Your task to perform on an android device: turn off translation in the chrome app Image 0: 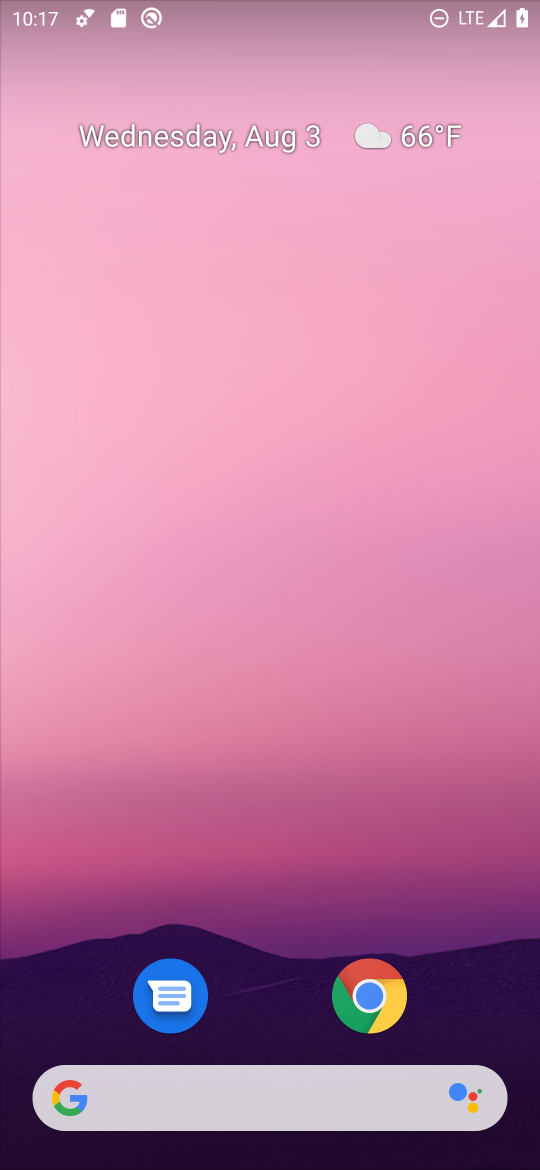
Step 0: click (378, 999)
Your task to perform on an android device: turn off translation in the chrome app Image 1: 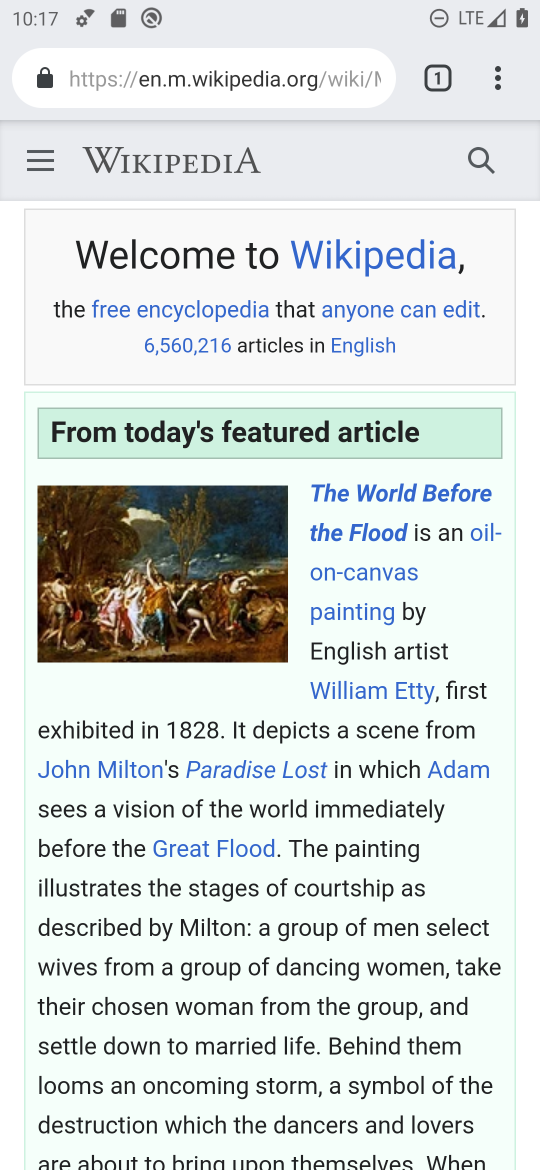
Step 1: click (498, 89)
Your task to perform on an android device: turn off translation in the chrome app Image 2: 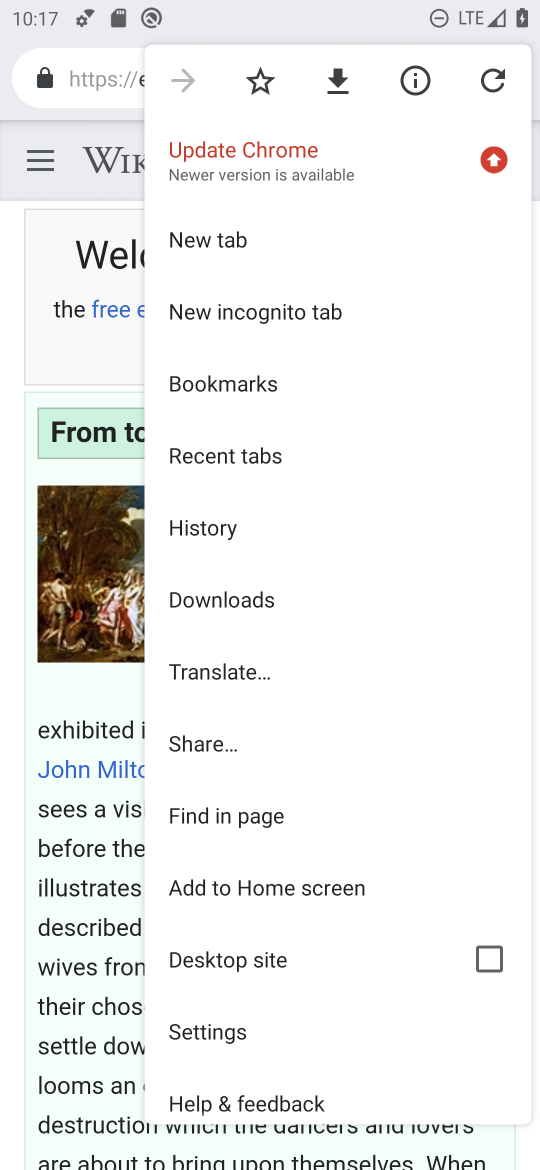
Step 2: click (243, 1027)
Your task to perform on an android device: turn off translation in the chrome app Image 3: 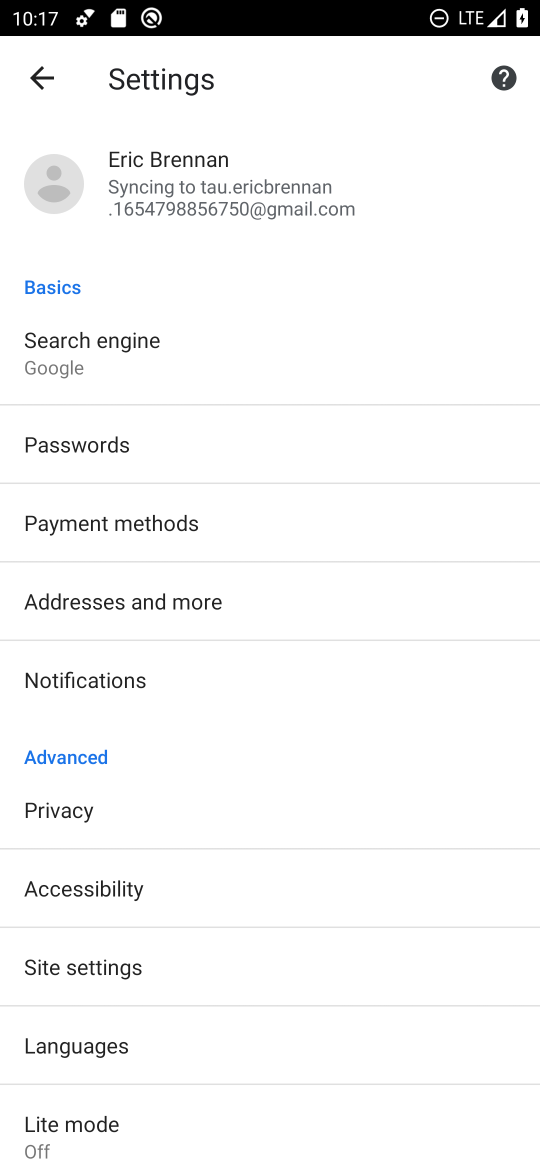
Step 3: click (243, 1025)
Your task to perform on an android device: turn off translation in the chrome app Image 4: 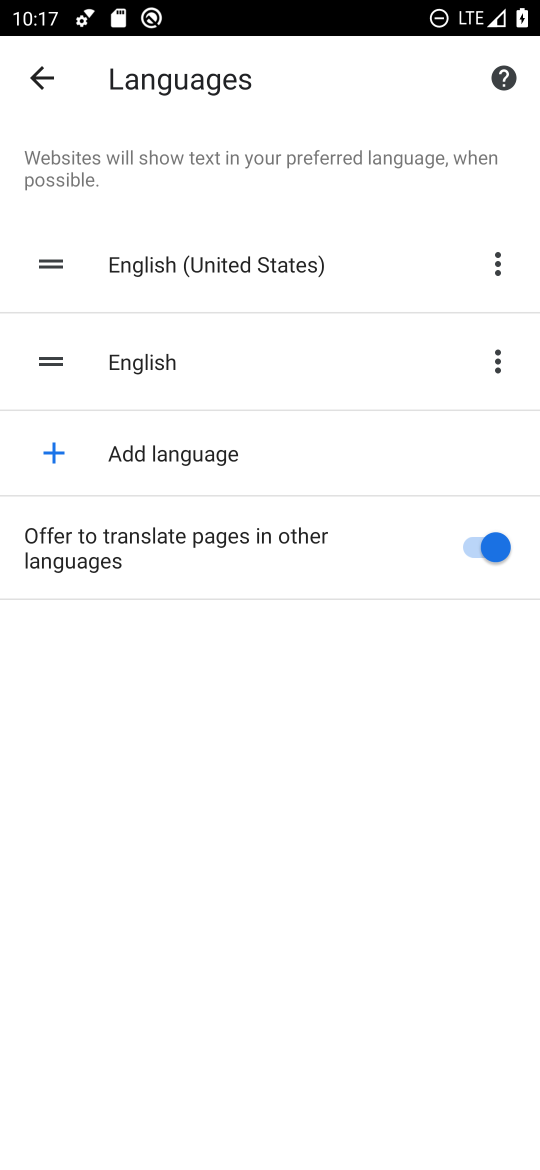
Step 4: click (485, 541)
Your task to perform on an android device: turn off translation in the chrome app Image 5: 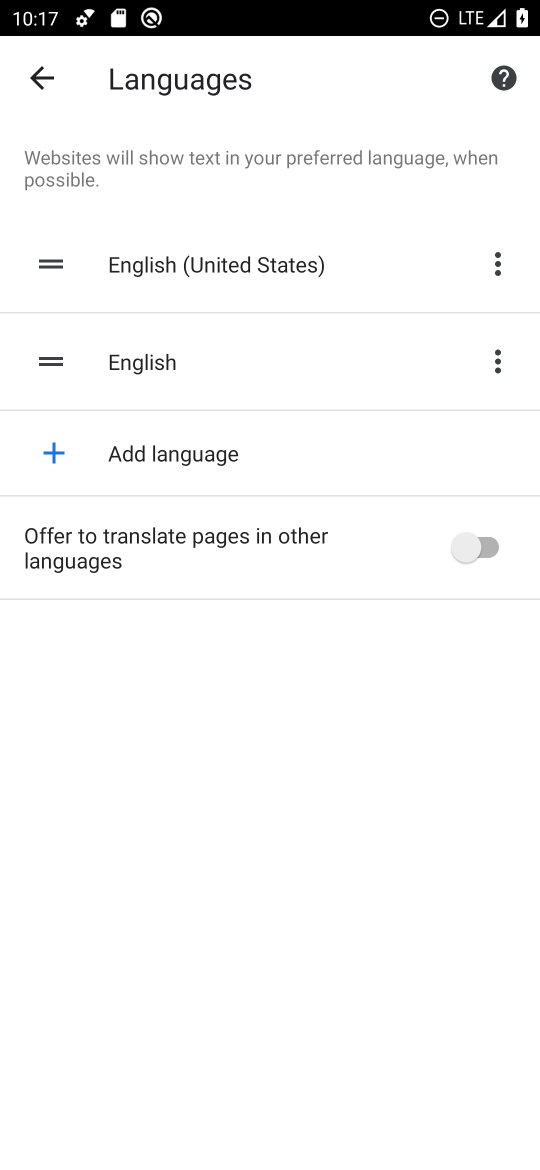
Step 5: task complete